Your task to perform on an android device: open a bookmark in the chrome app Image 0: 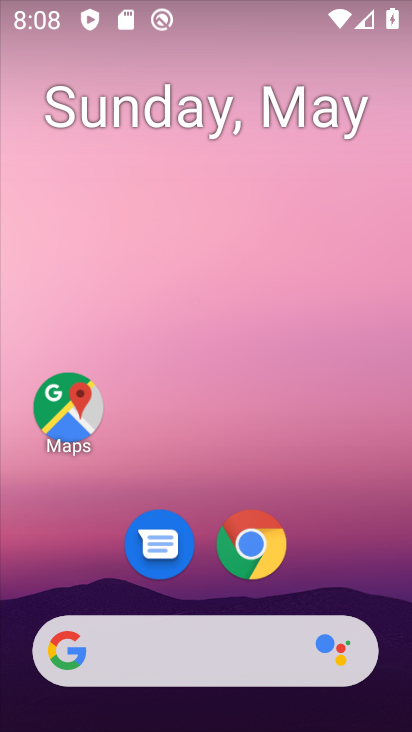
Step 0: drag from (304, 347) to (234, 3)
Your task to perform on an android device: open a bookmark in the chrome app Image 1: 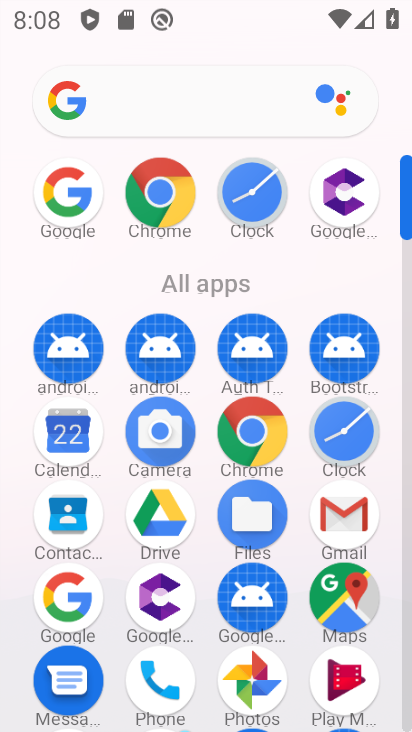
Step 1: drag from (6, 662) to (4, 302)
Your task to perform on an android device: open a bookmark in the chrome app Image 2: 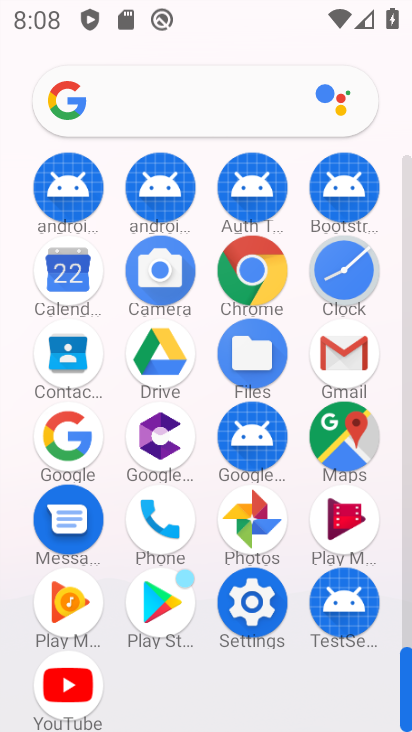
Step 2: click (252, 259)
Your task to perform on an android device: open a bookmark in the chrome app Image 3: 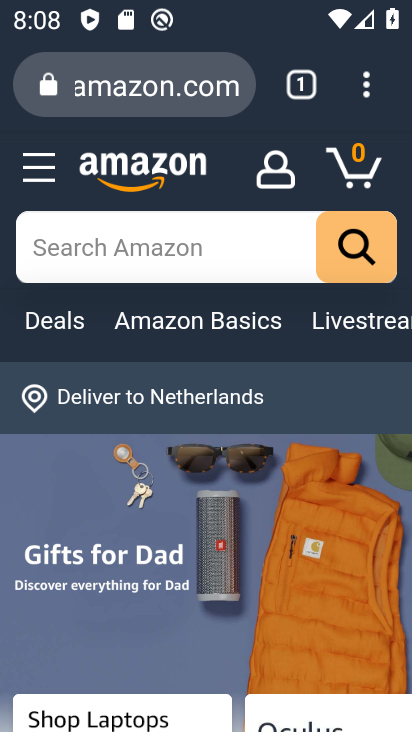
Step 3: drag from (361, 86) to (216, 358)
Your task to perform on an android device: open a bookmark in the chrome app Image 4: 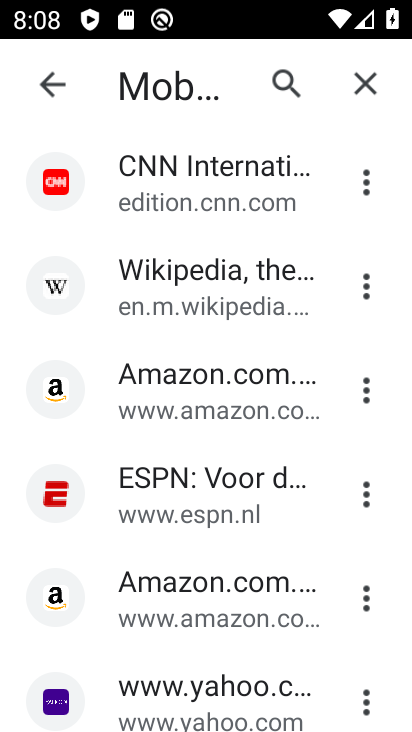
Step 4: click (233, 181)
Your task to perform on an android device: open a bookmark in the chrome app Image 5: 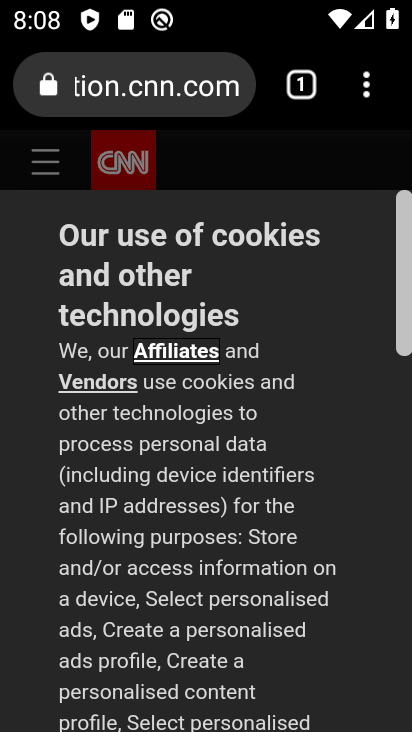
Step 5: task complete